Your task to perform on an android device: Open Google Chrome and open the bookmarks view Image 0: 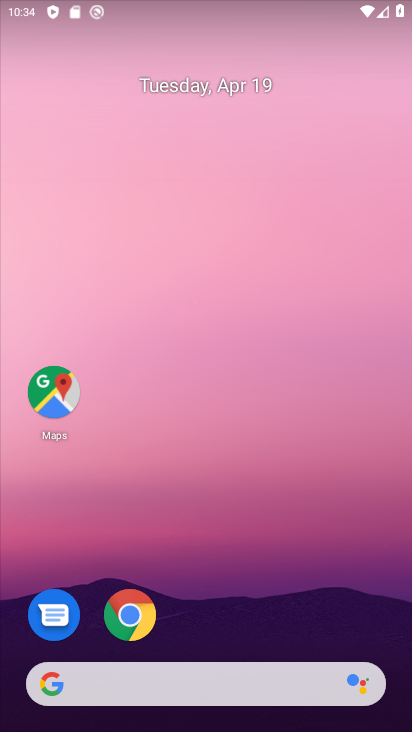
Step 0: click (132, 612)
Your task to perform on an android device: Open Google Chrome and open the bookmarks view Image 1: 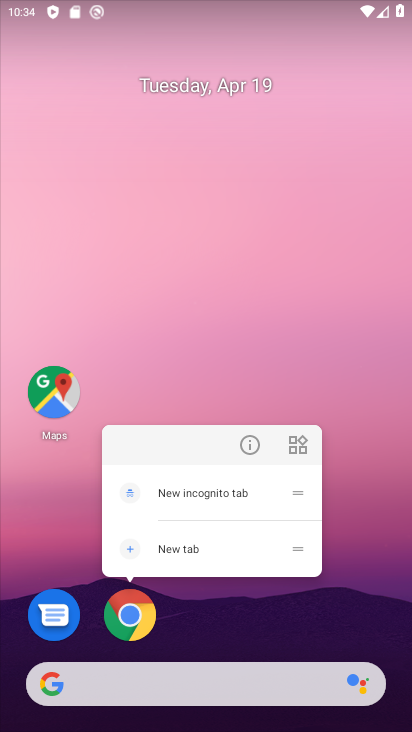
Step 1: click (189, 603)
Your task to perform on an android device: Open Google Chrome and open the bookmarks view Image 2: 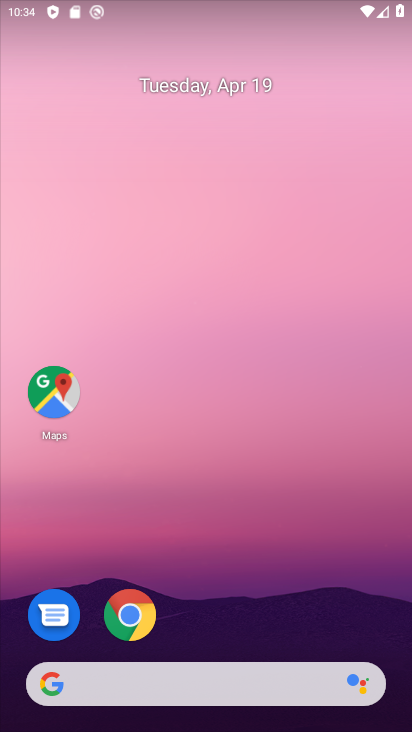
Step 2: click (133, 614)
Your task to perform on an android device: Open Google Chrome and open the bookmarks view Image 3: 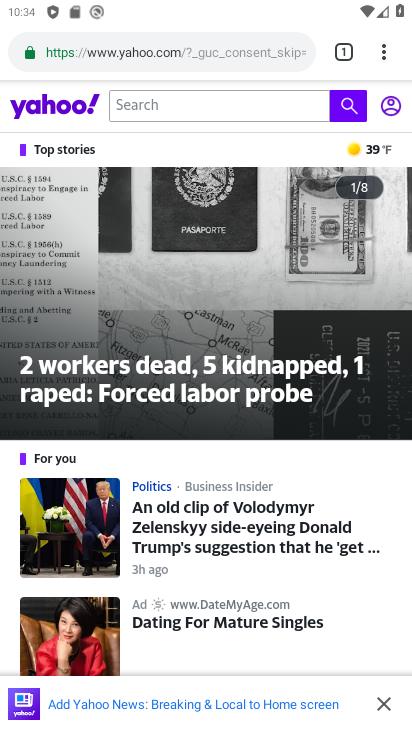
Step 3: click (379, 50)
Your task to perform on an android device: Open Google Chrome and open the bookmarks view Image 4: 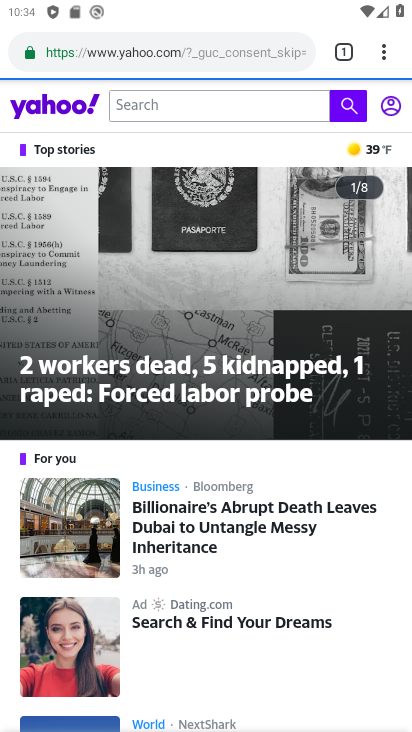
Step 4: click (385, 53)
Your task to perform on an android device: Open Google Chrome and open the bookmarks view Image 5: 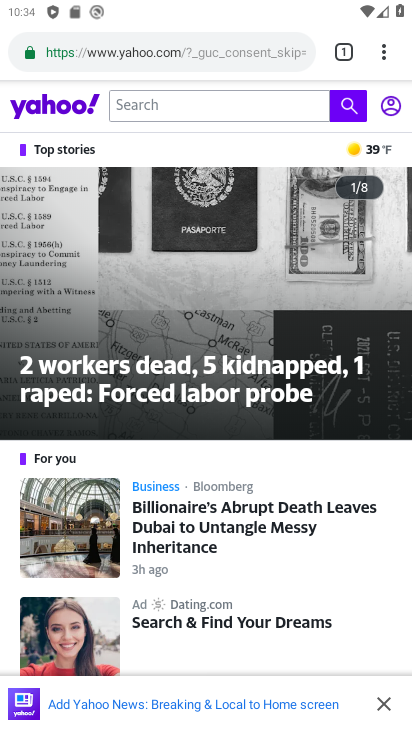
Step 5: click (380, 52)
Your task to perform on an android device: Open Google Chrome and open the bookmarks view Image 6: 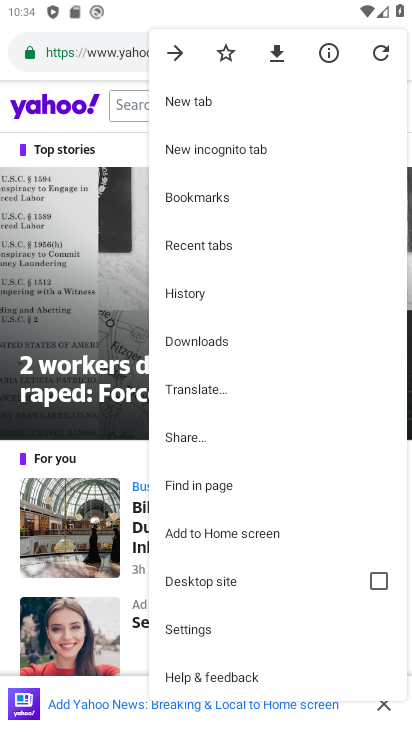
Step 6: click (236, 201)
Your task to perform on an android device: Open Google Chrome and open the bookmarks view Image 7: 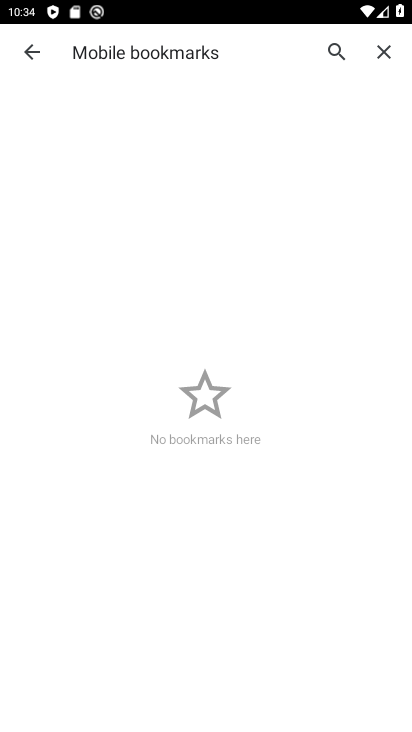
Step 7: task complete